Your task to perform on an android device: What's the weather today? Image 0: 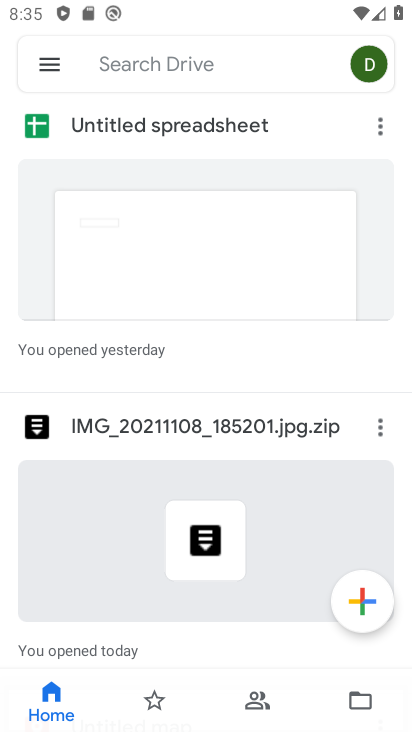
Step 0: press home button
Your task to perform on an android device: What's the weather today? Image 1: 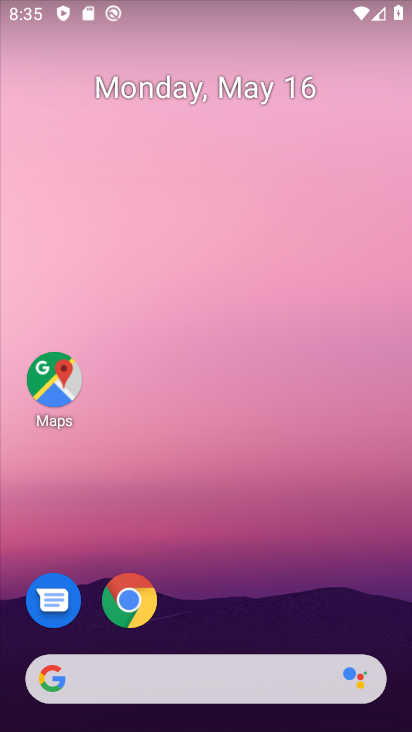
Step 1: drag from (8, 133) to (358, 209)
Your task to perform on an android device: What's the weather today? Image 2: 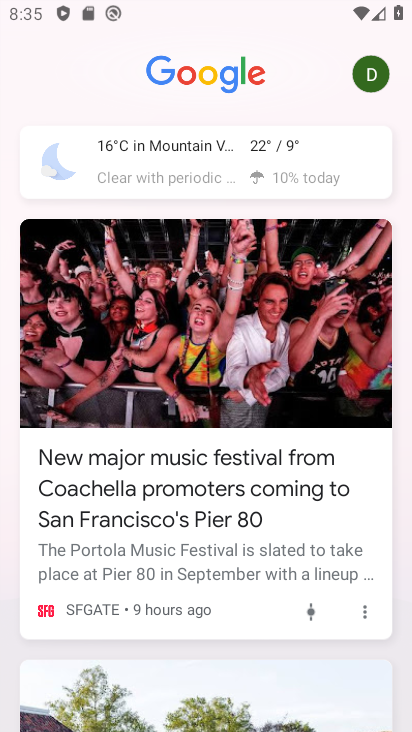
Step 2: click (285, 154)
Your task to perform on an android device: What's the weather today? Image 3: 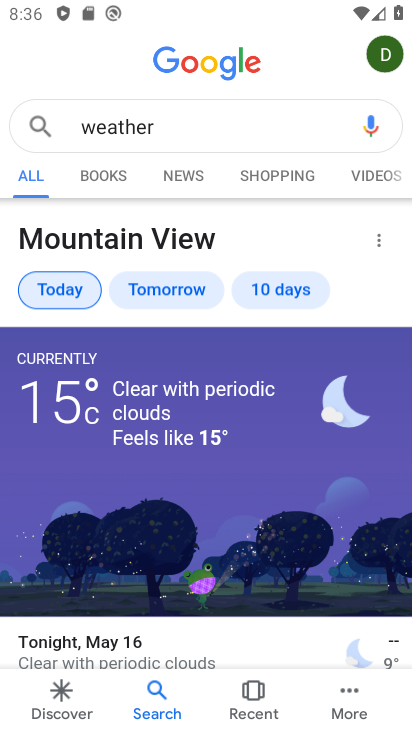
Step 3: task complete